Your task to perform on an android device: Search for acer nitro on costco, select the first entry, add it to the cart, then select checkout. Image 0: 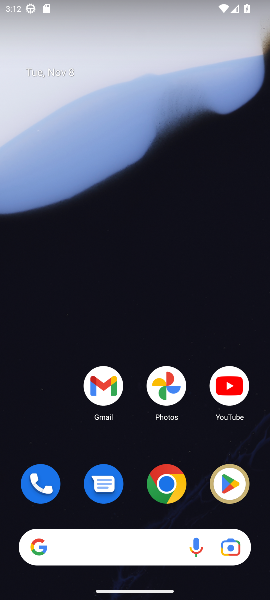
Step 0: click (165, 472)
Your task to perform on an android device: Search for acer nitro on costco, select the first entry, add it to the cart, then select checkout. Image 1: 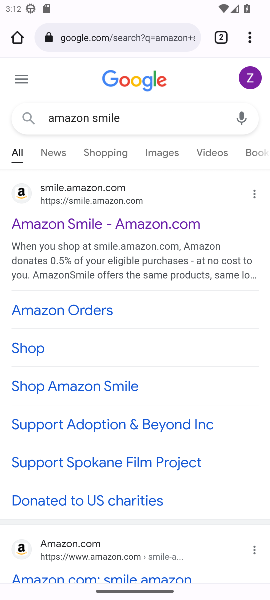
Step 1: click (80, 34)
Your task to perform on an android device: Search for acer nitro on costco, select the first entry, add it to the cart, then select checkout. Image 2: 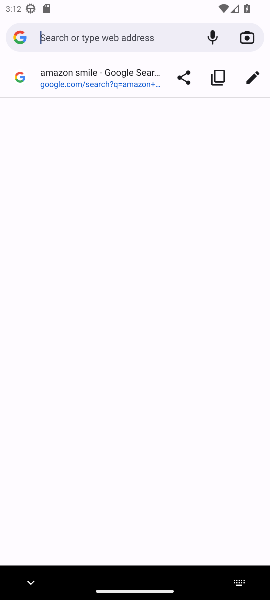
Step 2: type "costco"
Your task to perform on an android device: Search for acer nitro on costco, select the first entry, add it to the cart, then select checkout. Image 3: 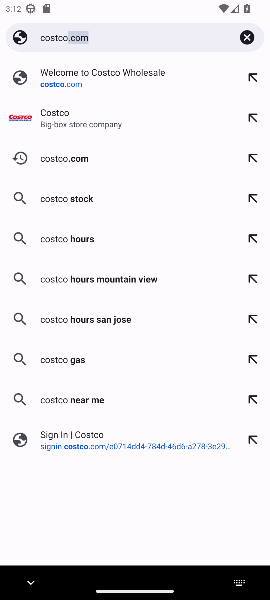
Step 3: click (71, 112)
Your task to perform on an android device: Search for acer nitro on costco, select the first entry, add it to the cart, then select checkout. Image 4: 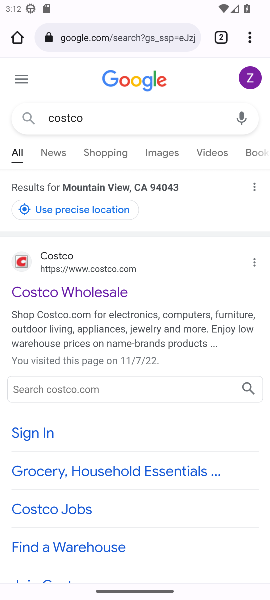
Step 4: click (88, 296)
Your task to perform on an android device: Search for acer nitro on costco, select the first entry, add it to the cart, then select checkout. Image 5: 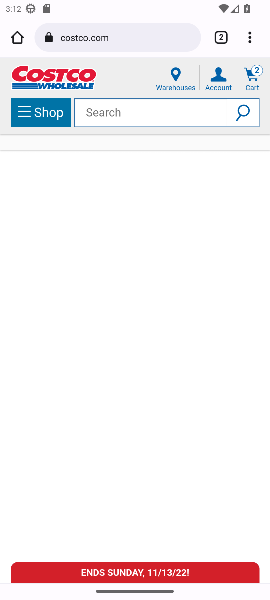
Step 5: click (140, 105)
Your task to perform on an android device: Search for acer nitro on costco, select the first entry, add it to the cart, then select checkout. Image 6: 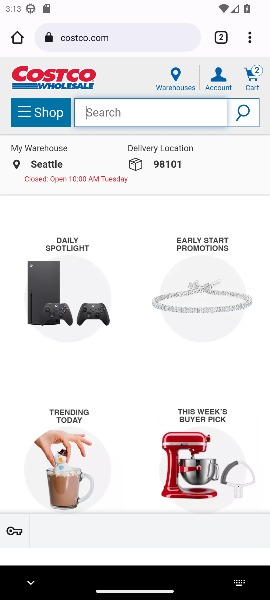
Step 6: type "acer nitro"
Your task to perform on an android device: Search for acer nitro on costco, select the first entry, add it to the cart, then select checkout. Image 7: 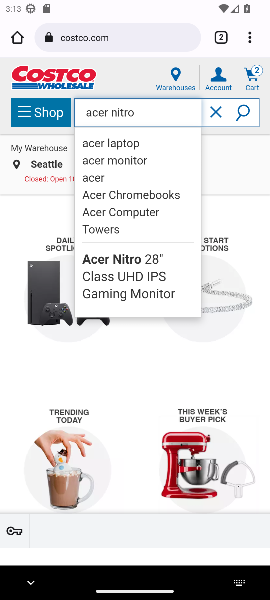
Step 7: click (239, 108)
Your task to perform on an android device: Search for acer nitro on costco, select the first entry, add it to the cart, then select checkout. Image 8: 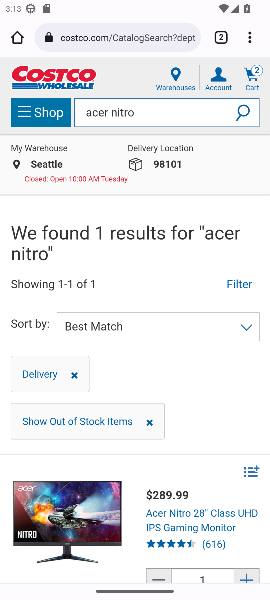
Step 8: click (244, 572)
Your task to perform on an android device: Search for acer nitro on costco, select the first entry, add it to the cart, then select checkout. Image 9: 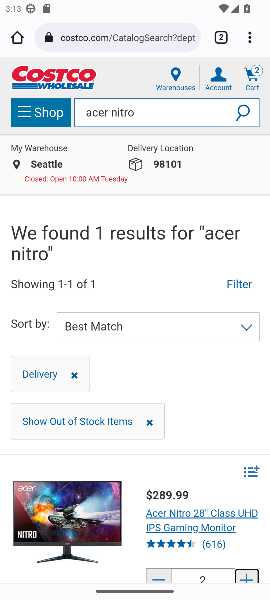
Step 9: click (256, 70)
Your task to perform on an android device: Search for acer nitro on costco, select the first entry, add it to the cart, then select checkout. Image 10: 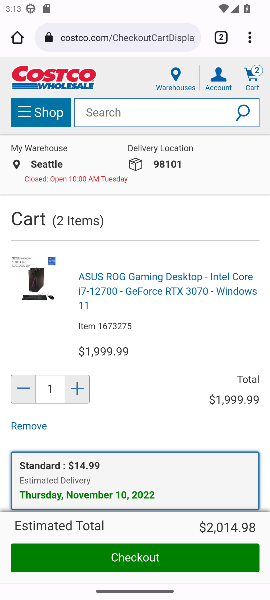
Step 10: click (158, 543)
Your task to perform on an android device: Search for acer nitro on costco, select the first entry, add it to the cart, then select checkout. Image 11: 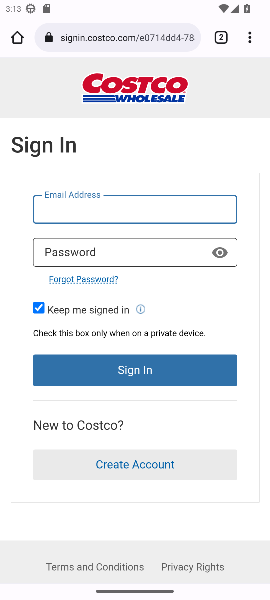
Step 11: task complete